Your task to perform on an android device: turn on data saver in the chrome app Image 0: 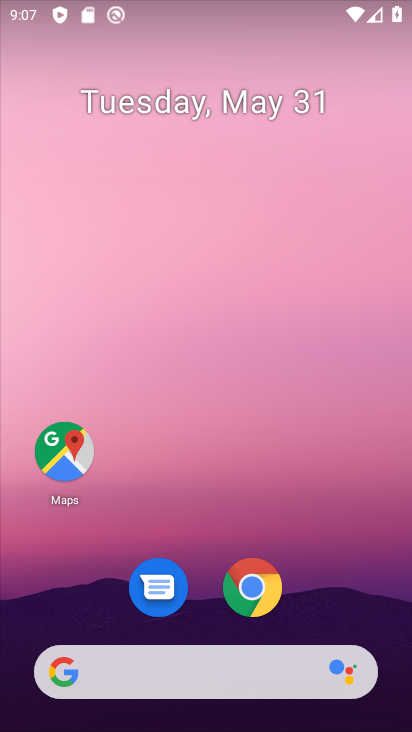
Step 0: click (252, 590)
Your task to perform on an android device: turn on data saver in the chrome app Image 1: 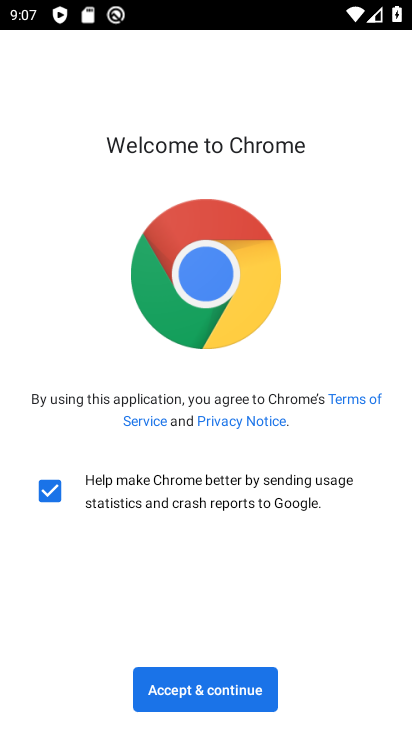
Step 1: click (197, 684)
Your task to perform on an android device: turn on data saver in the chrome app Image 2: 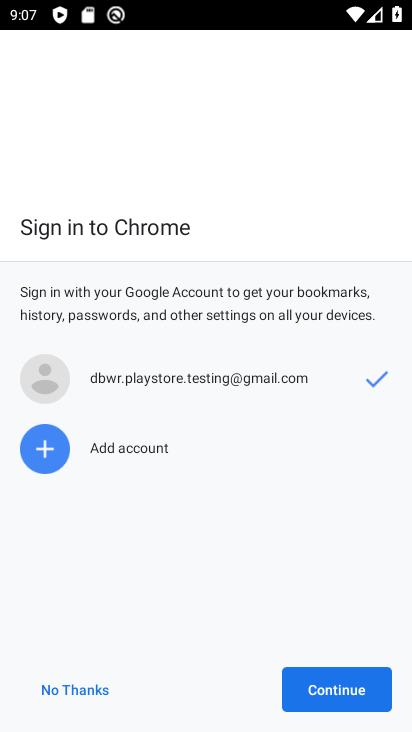
Step 2: click (350, 694)
Your task to perform on an android device: turn on data saver in the chrome app Image 3: 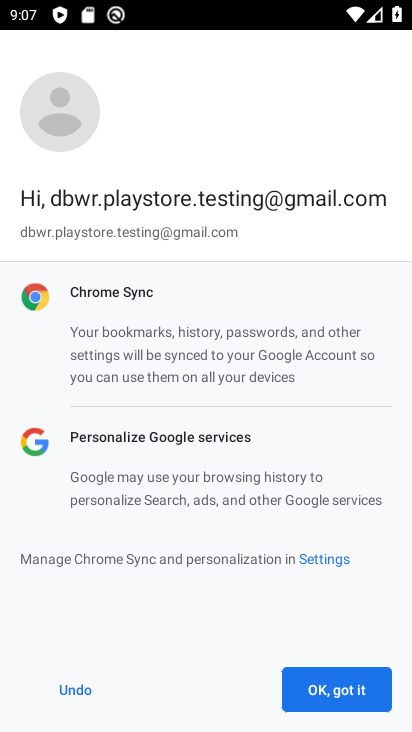
Step 3: click (350, 694)
Your task to perform on an android device: turn on data saver in the chrome app Image 4: 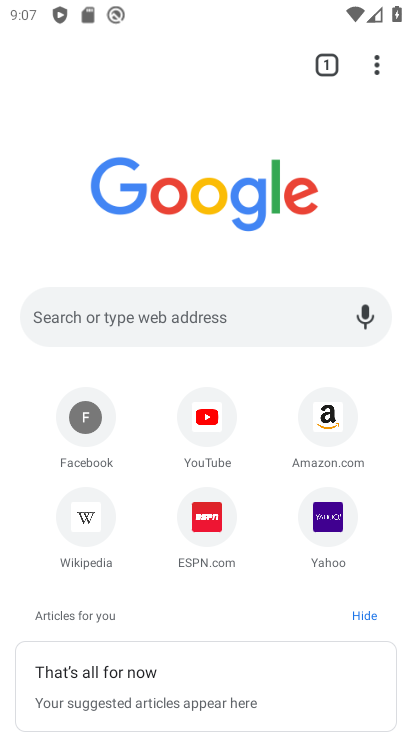
Step 4: drag from (376, 63) to (136, 545)
Your task to perform on an android device: turn on data saver in the chrome app Image 5: 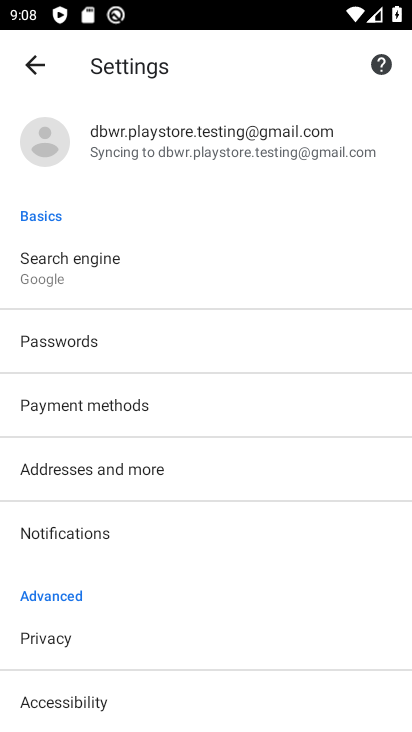
Step 5: drag from (173, 646) to (188, 331)
Your task to perform on an android device: turn on data saver in the chrome app Image 6: 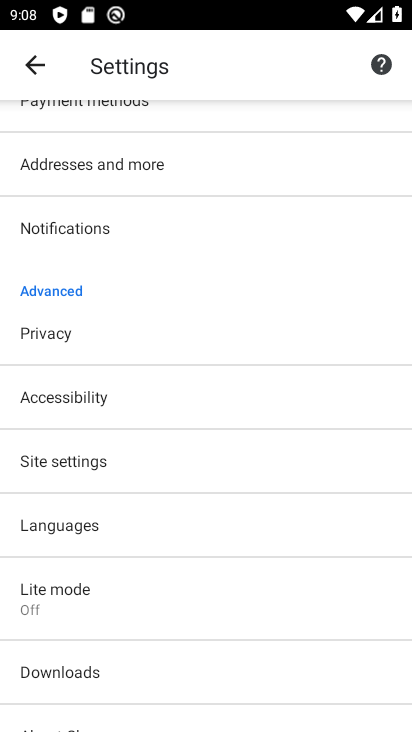
Step 6: click (41, 585)
Your task to perform on an android device: turn on data saver in the chrome app Image 7: 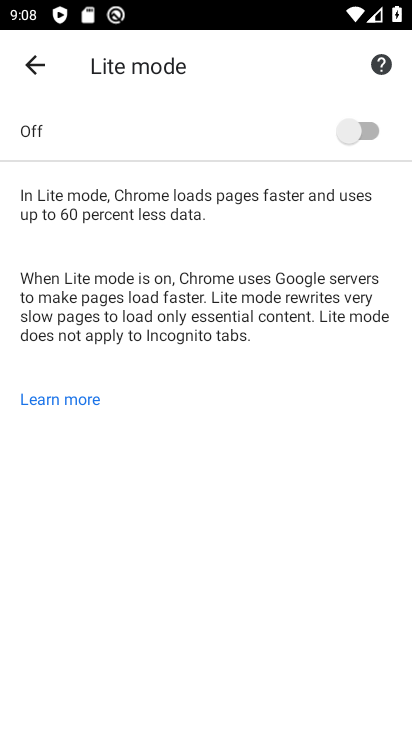
Step 7: click (354, 136)
Your task to perform on an android device: turn on data saver in the chrome app Image 8: 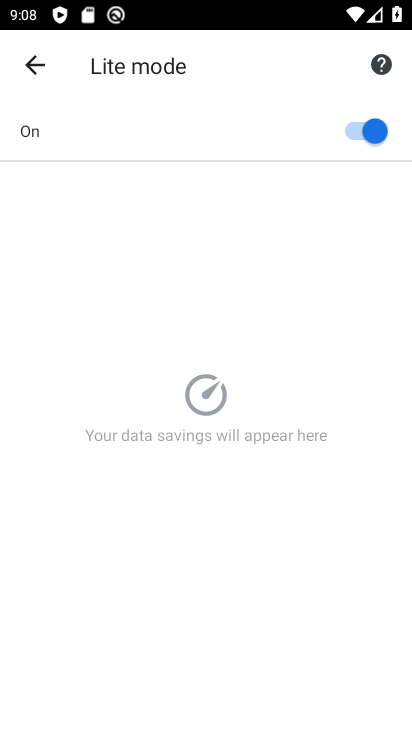
Step 8: task complete